Your task to perform on an android device: Open Google Chrome and click the shortcut for Amazon.com Image 0: 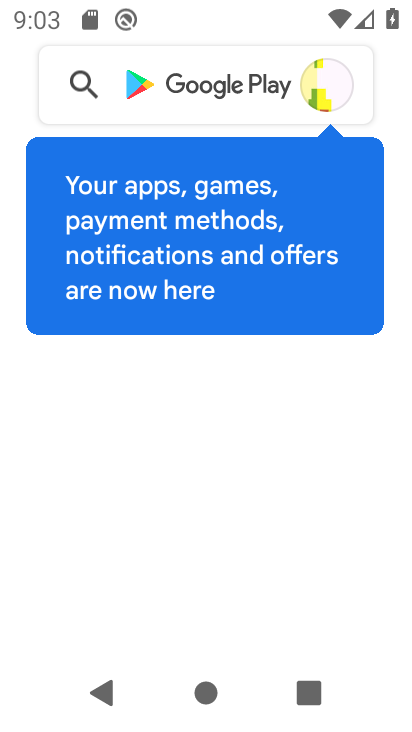
Step 0: press home button
Your task to perform on an android device: Open Google Chrome and click the shortcut for Amazon.com Image 1: 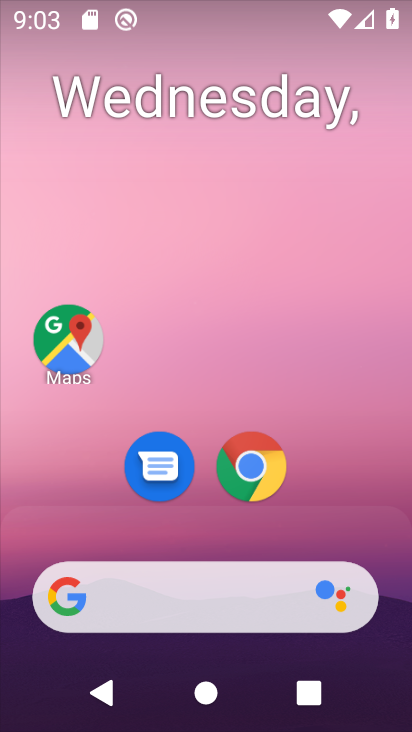
Step 1: click (239, 485)
Your task to perform on an android device: Open Google Chrome and click the shortcut for Amazon.com Image 2: 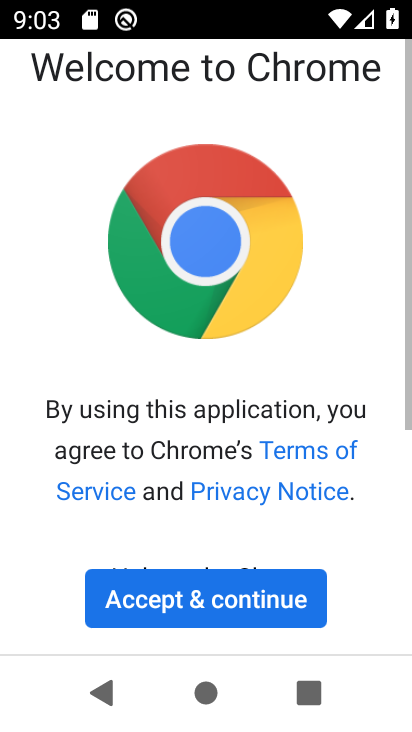
Step 2: click (235, 595)
Your task to perform on an android device: Open Google Chrome and click the shortcut for Amazon.com Image 3: 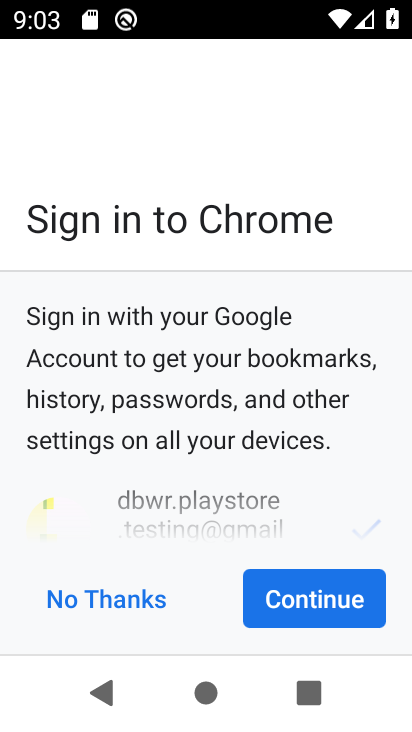
Step 3: click (300, 586)
Your task to perform on an android device: Open Google Chrome and click the shortcut for Amazon.com Image 4: 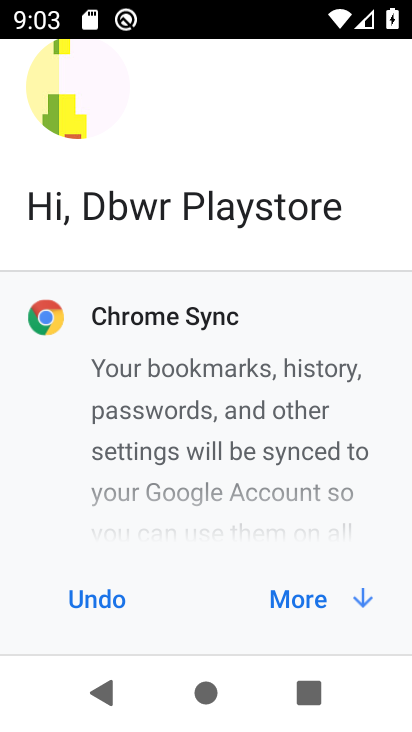
Step 4: click (296, 606)
Your task to perform on an android device: Open Google Chrome and click the shortcut for Amazon.com Image 5: 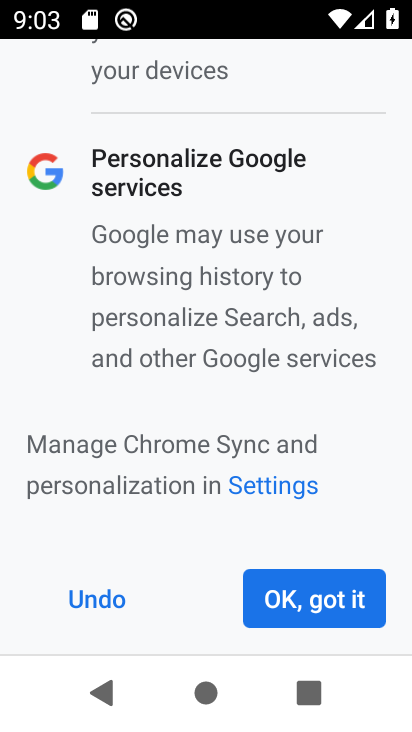
Step 5: click (301, 600)
Your task to perform on an android device: Open Google Chrome and click the shortcut for Amazon.com Image 6: 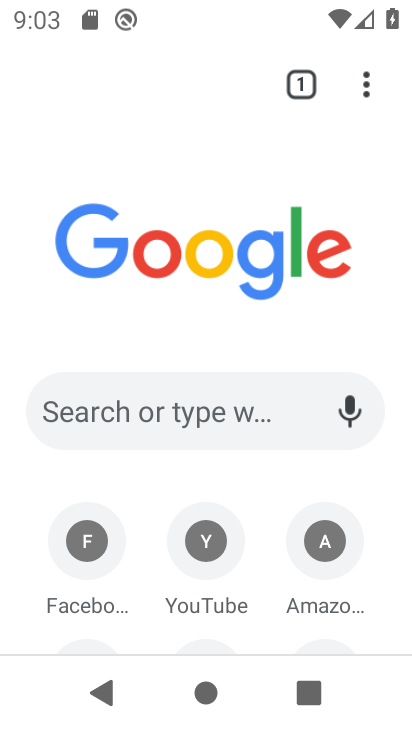
Step 6: click (317, 550)
Your task to perform on an android device: Open Google Chrome and click the shortcut for Amazon.com Image 7: 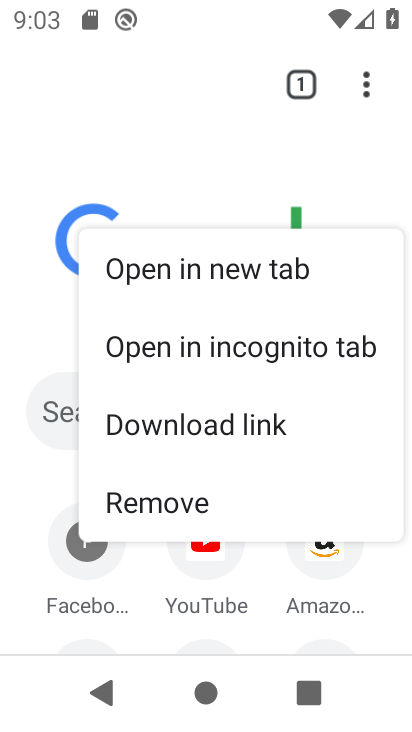
Step 7: click (329, 573)
Your task to perform on an android device: Open Google Chrome and click the shortcut for Amazon.com Image 8: 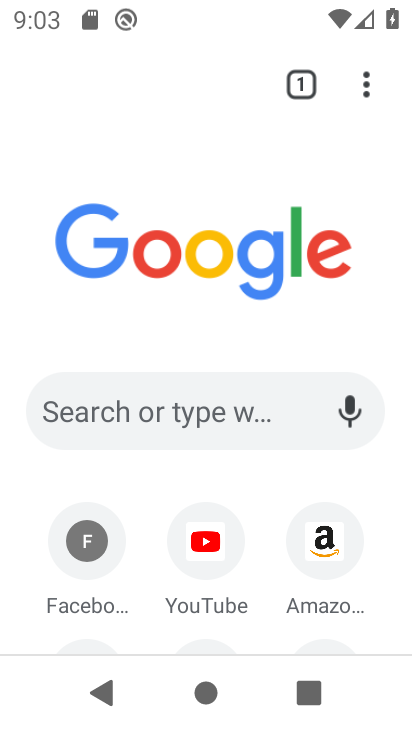
Step 8: click (329, 573)
Your task to perform on an android device: Open Google Chrome and click the shortcut for Amazon.com Image 9: 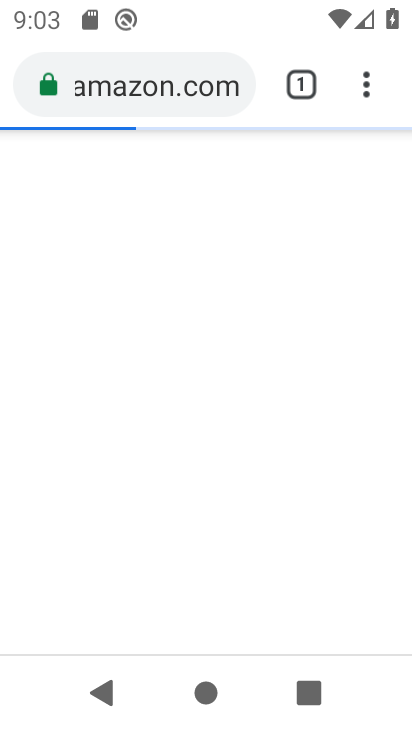
Step 9: click (320, 522)
Your task to perform on an android device: Open Google Chrome and click the shortcut for Amazon.com Image 10: 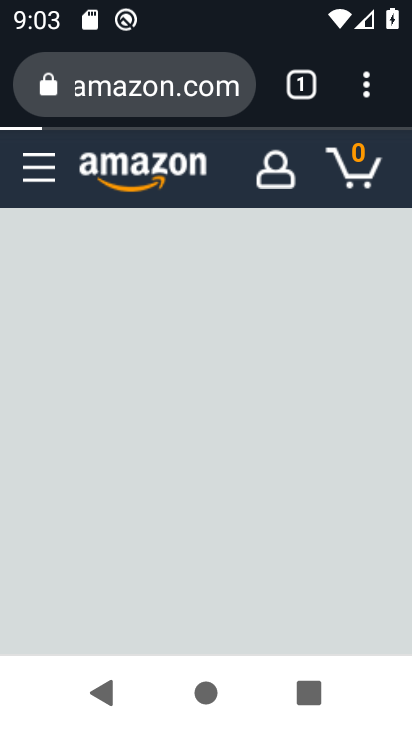
Step 10: task complete